Your task to perform on an android device: Search for the new Nike Air Max 270 on Nike.com Image 0: 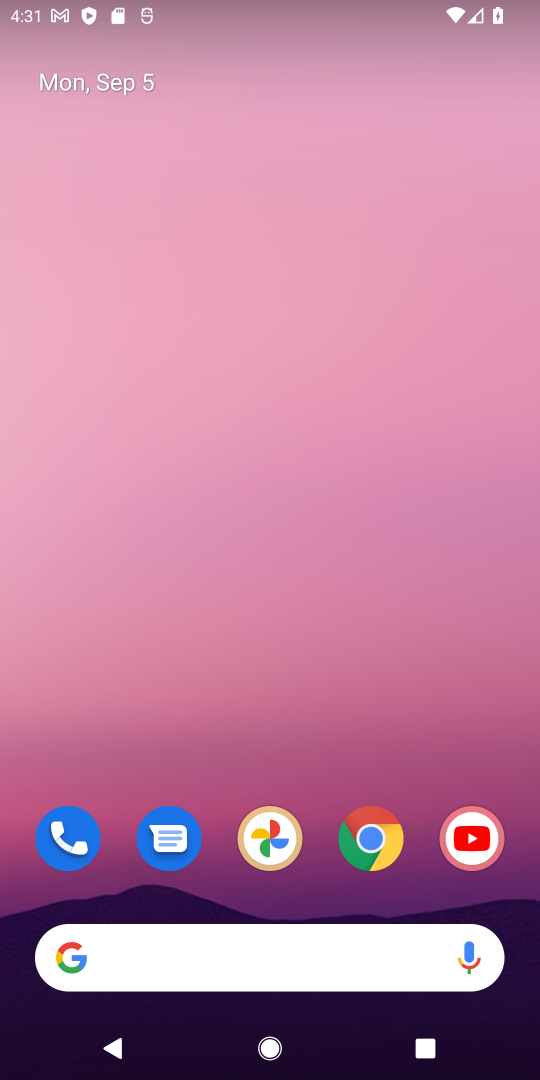
Step 0: drag from (328, 877) to (275, 77)
Your task to perform on an android device: Search for the new Nike Air Max 270 on Nike.com Image 1: 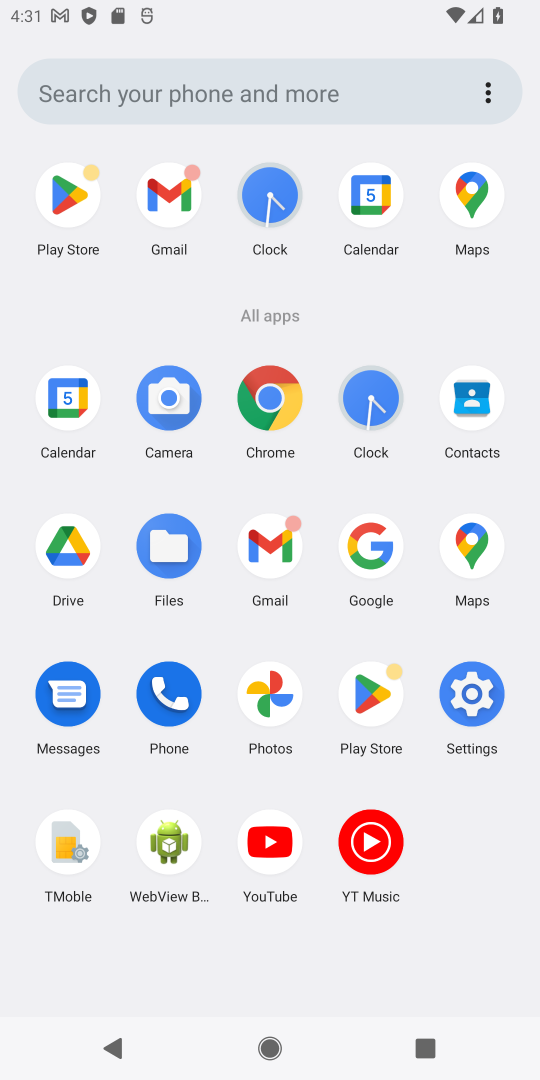
Step 1: click (270, 402)
Your task to perform on an android device: Search for the new Nike Air Max 270 on Nike.com Image 2: 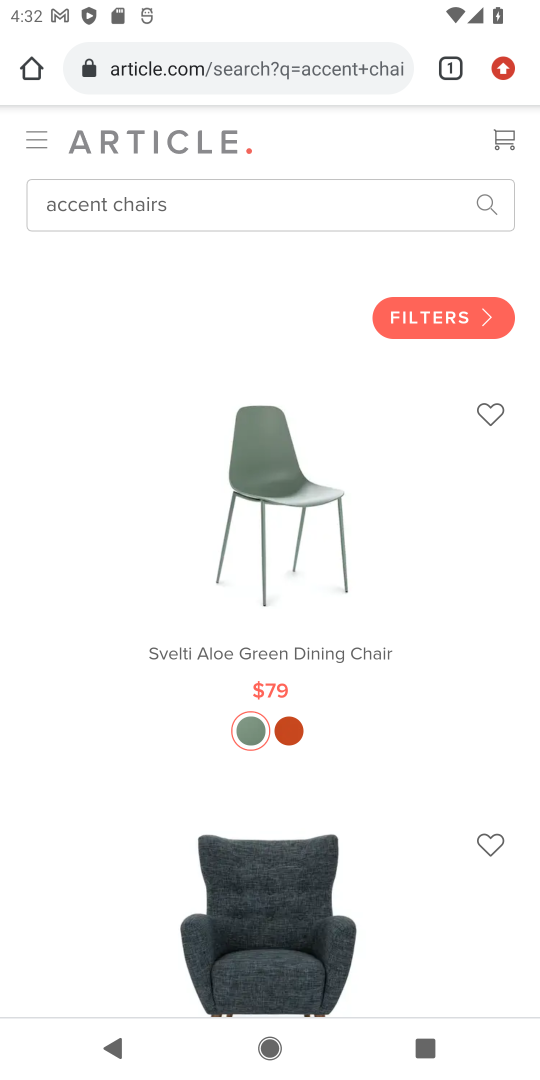
Step 2: click (313, 69)
Your task to perform on an android device: Search for the new Nike Air Max 270 on Nike.com Image 3: 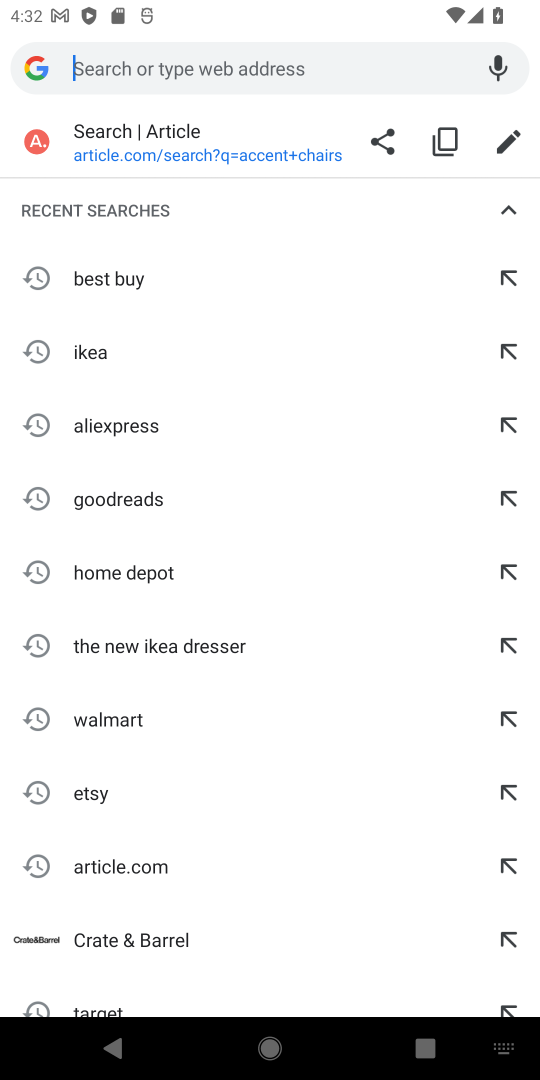
Step 3: type " accent chairs"
Your task to perform on an android device: Search for the new Nike Air Max 270 on Nike.com Image 4: 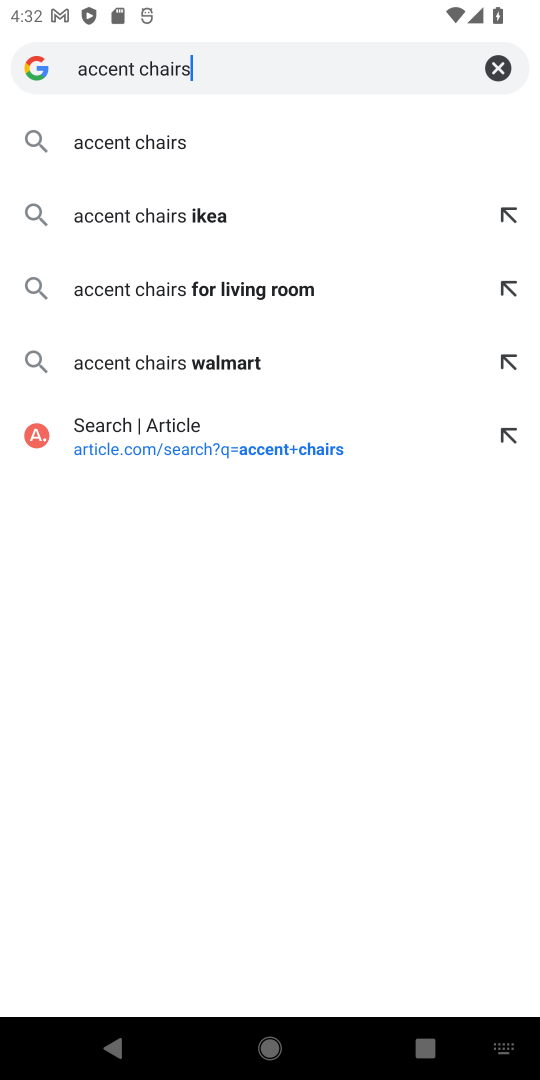
Step 4: click (137, 136)
Your task to perform on an android device: Search for the new Nike Air Max 270 on Nike.com Image 5: 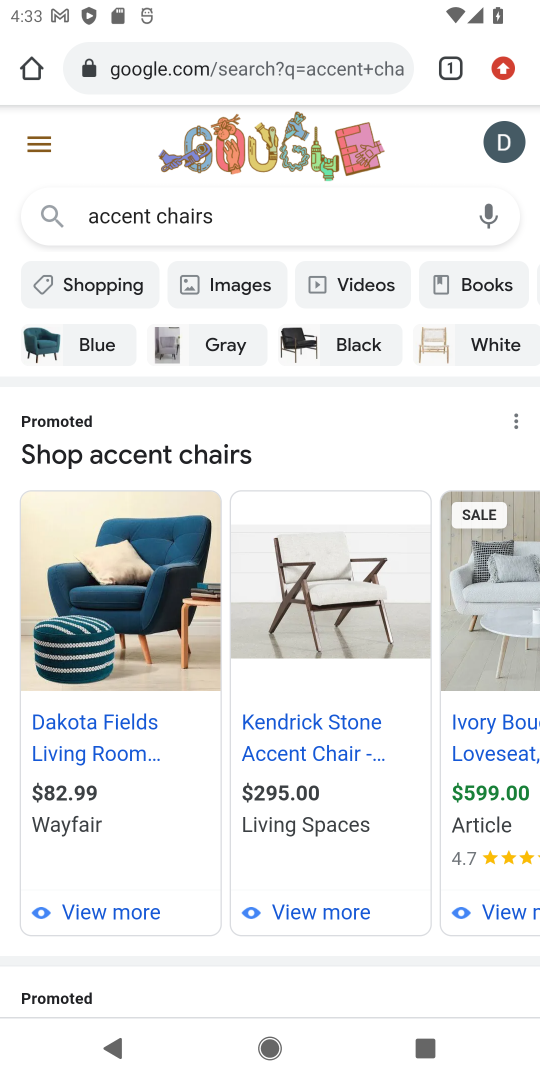
Step 5: drag from (239, 930) to (343, 413)
Your task to perform on an android device: Search for the new Nike Air Max 270 on Nike.com Image 6: 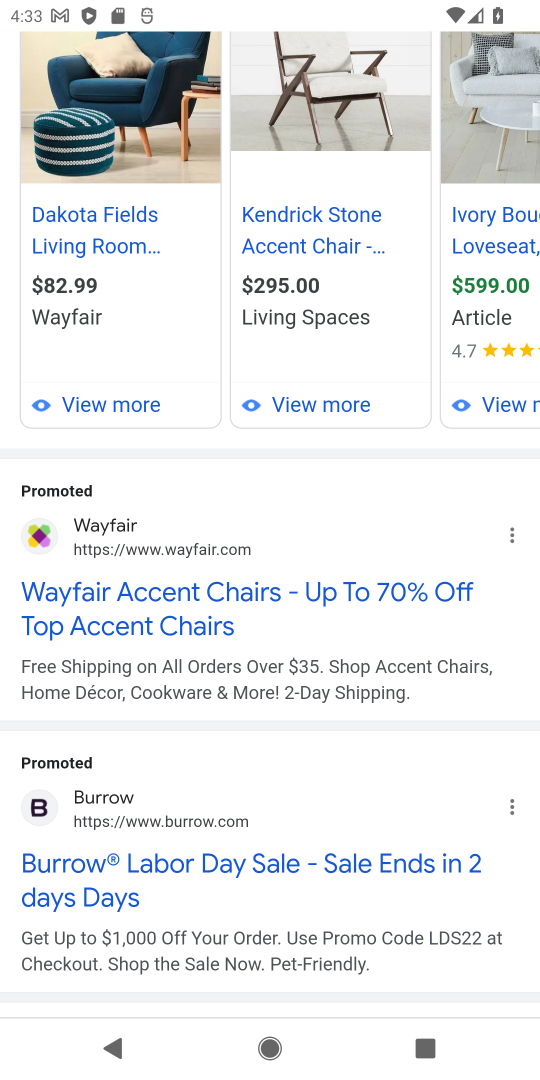
Step 6: click (111, 600)
Your task to perform on an android device: Search for the new Nike Air Max 270 on Nike.com Image 7: 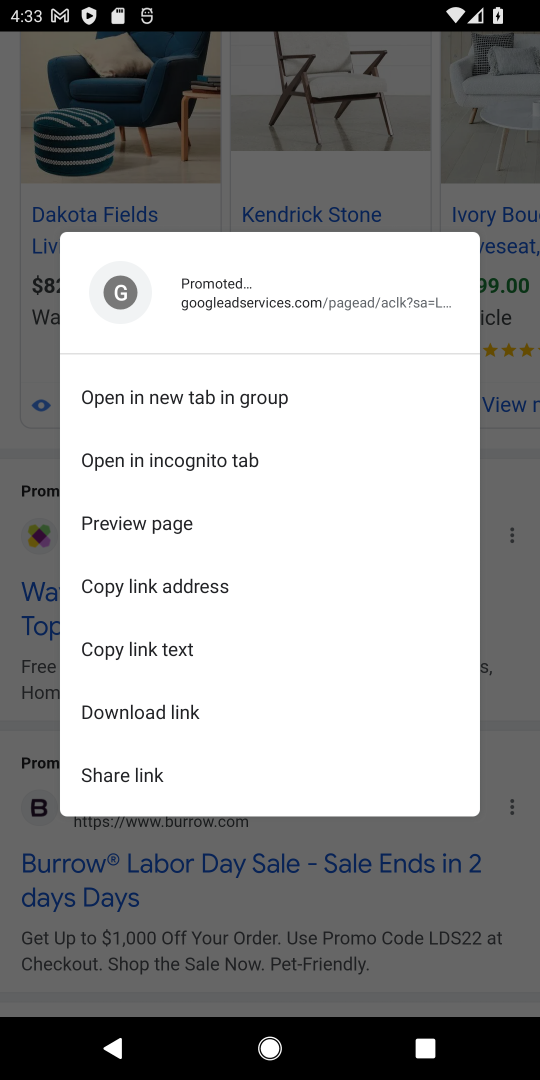
Step 7: click (162, 403)
Your task to perform on an android device: Search for the new Nike Air Max 270 on Nike.com Image 8: 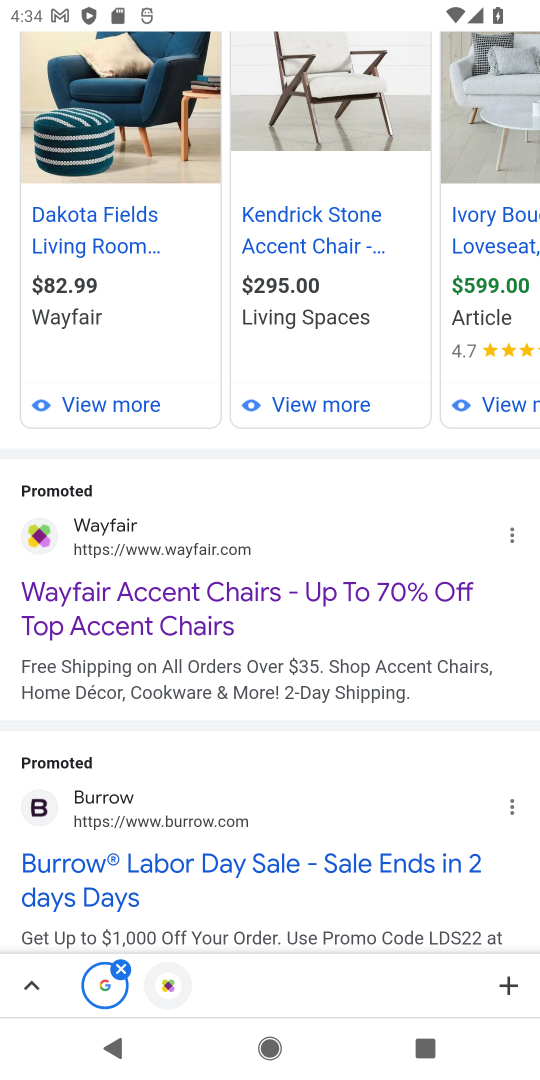
Step 8: task complete